Your task to perform on an android device: check out phone information Image 0: 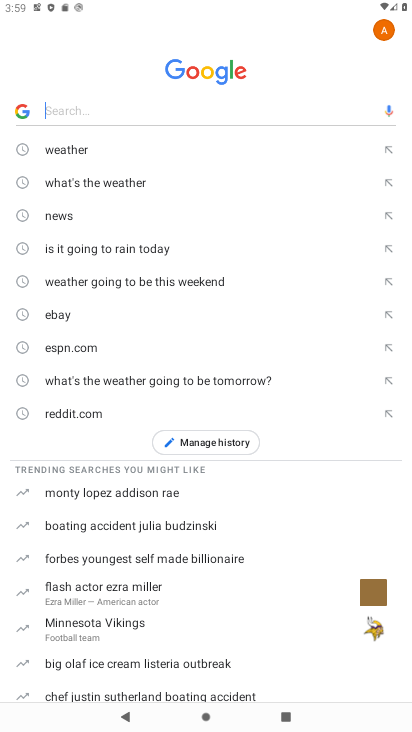
Step 0: drag from (280, 599) to (269, 306)
Your task to perform on an android device: check out phone information Image 1: 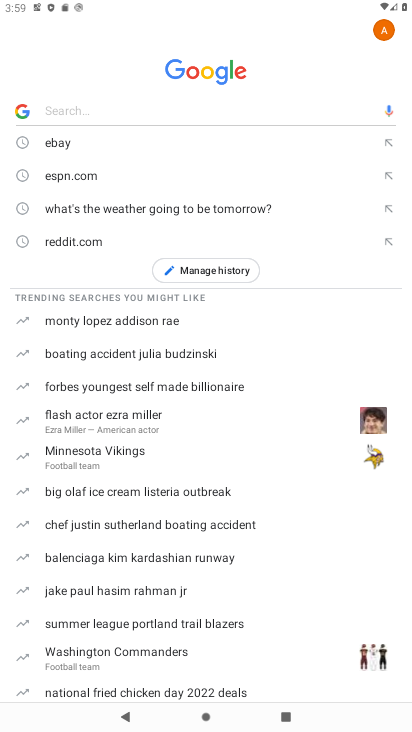
Step 1: press home button
Your task to perform on an android device: check out phone information Image 2: 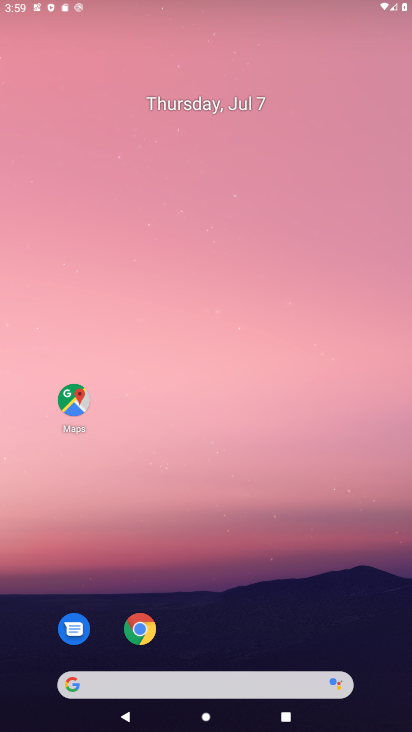
Step 2: drag from (233, 656) to (237, 247)
Your task to perform on an android device: check out phone information Image 3: 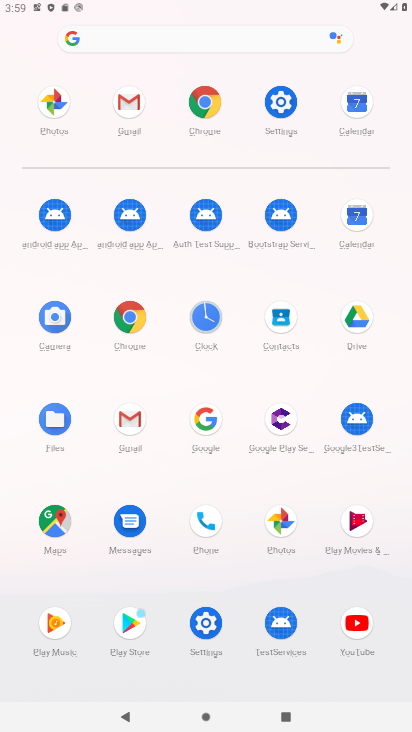
Step 3: click (280, 88)
Your task to perform on an android device: check out phone information Image 4: 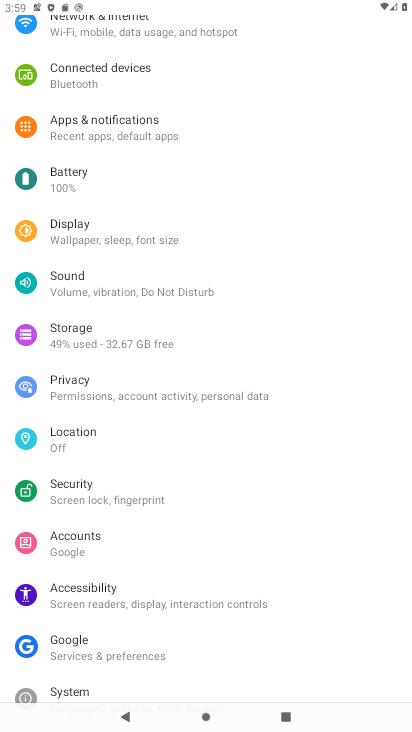
Step 4: drag from (213, 623) to (215, 69)
Your task to perform on an android device: check out phone information Image 5: 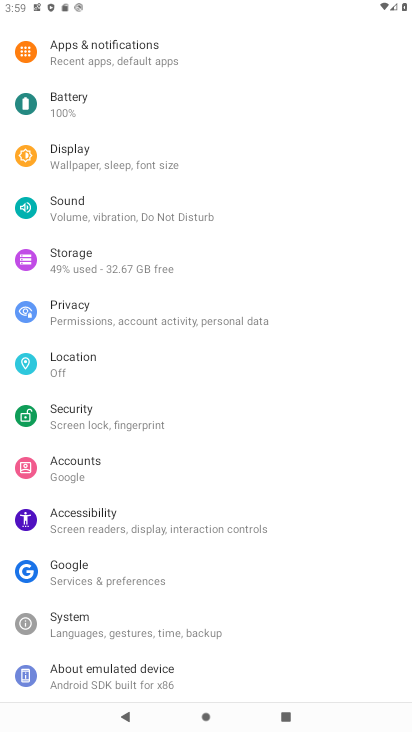
Step 5: click (164, 667)
Your task to perform on an android device: check out phone information Image 6: 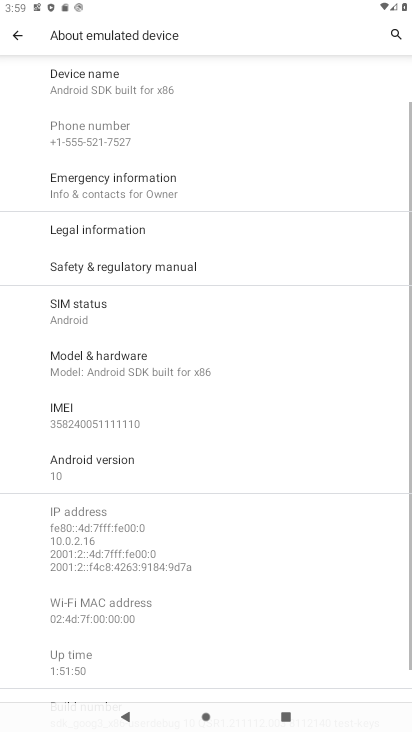
Step 6: task complete